Your task to perform on an android device: What's the weather? Image 0: 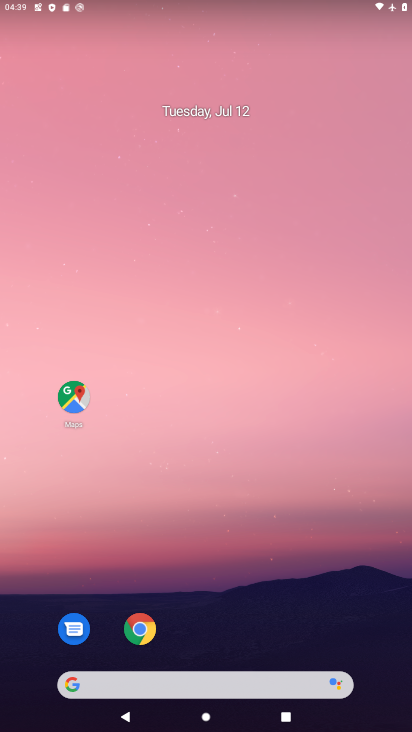
Step 0: drag from (242, 542) to (220, 141)
Your task to perform on an android device: What's the weather? Image 1: 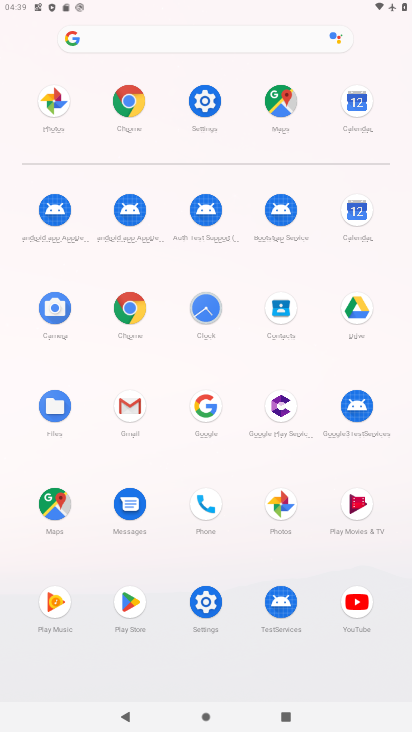
Step 1: click (127, 103)
Your task to perform on an android device: What's the weather? Image 2: 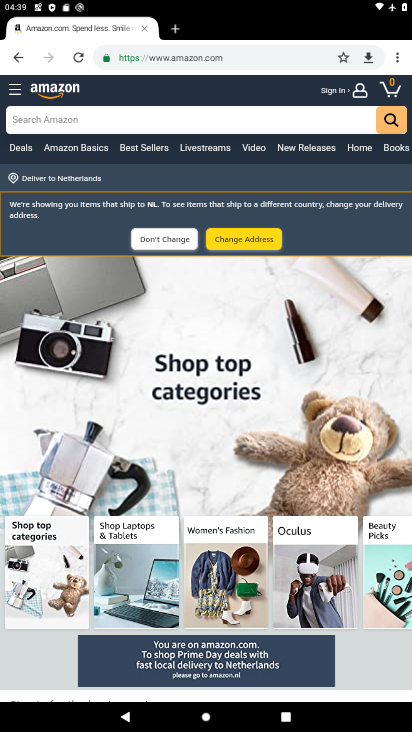
Step 2: click (172, 59)
Your task to perform on an android device: What's the weather? Image 3: 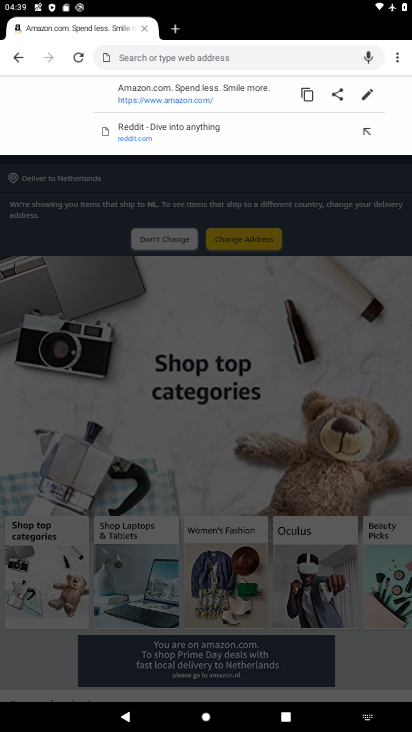
Step 3: type "weather"
Your task to perform on an android device: What's the weather? Image 4: 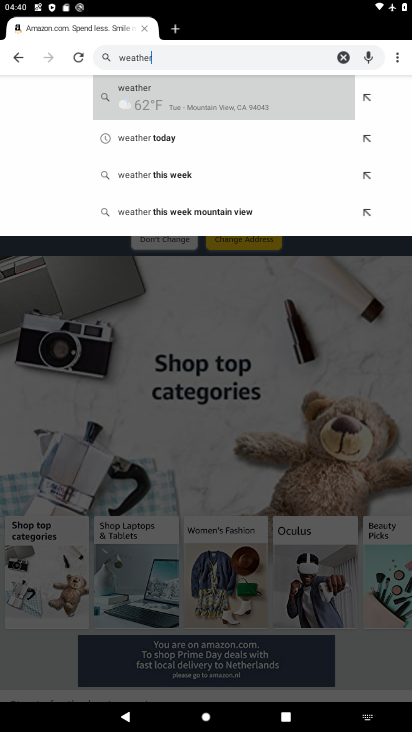
Step 4: click (211, 108)
Your task to perform on an android device: What's the weather? Image 5: 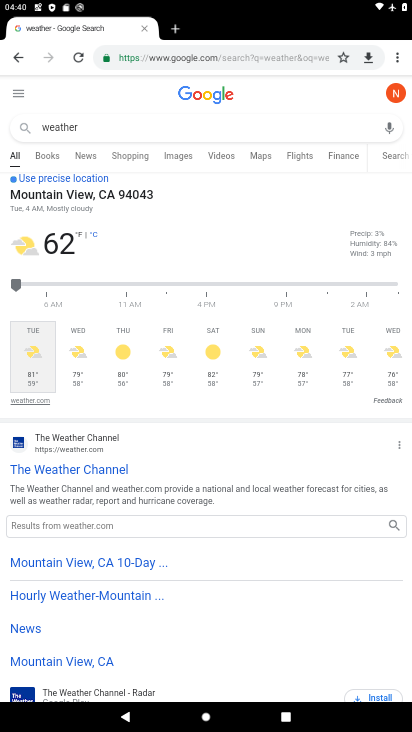
Step 5: task complete